Your task to perform on an android device: turn on the 24-hour format for clock Image 0: 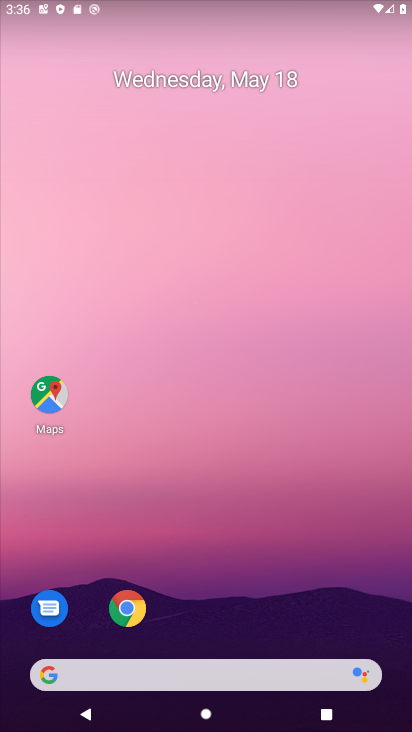
Step 0: drag from (205, 641) to (162, 132)
Your task to perform on an android device: turn on the 24-hour format for clock Image 1: 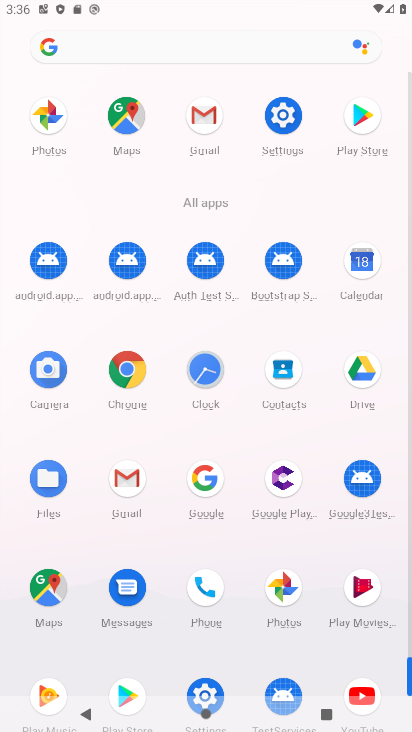
Step 1: click (198, 360)
Your task to perform on an android device: turn on the 24-hour format for clock Image 2: 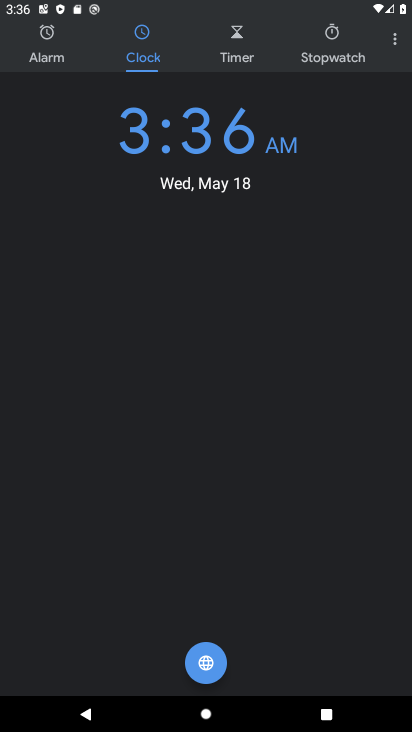
Step 2: click (407, 36)
Your task to perform on an android device: turn on the 24-hour format for clock Image 3: 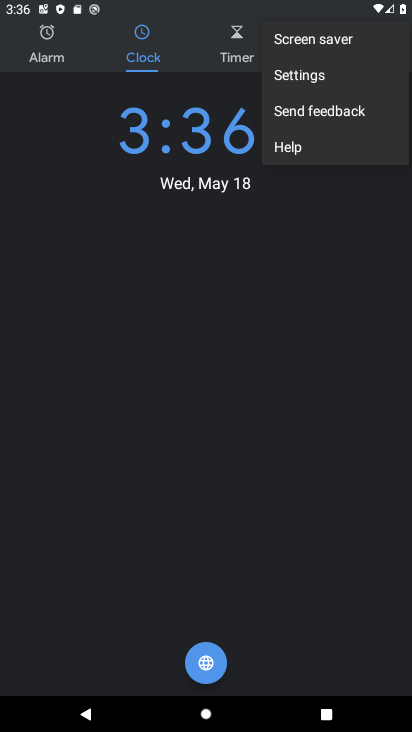
Step 3: click (307, 84)
Your task to perform on an android device: turn on the 24-hour format for clock Image 4: 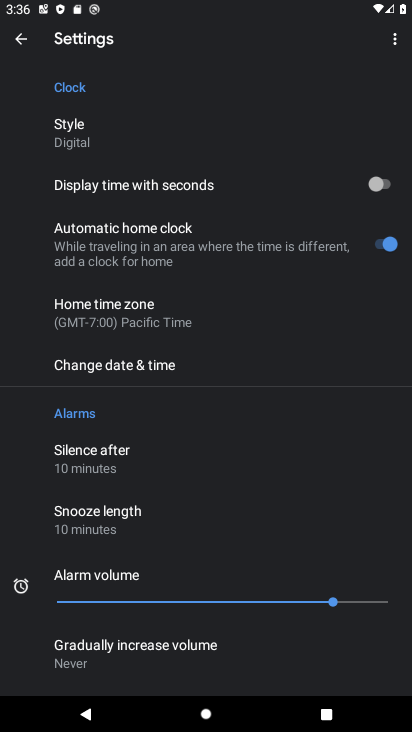
Step 4: drag from (169, 510) to (158, 154)
Your task to perform on an android device: turn on the 24-hour format for clock Image 5: 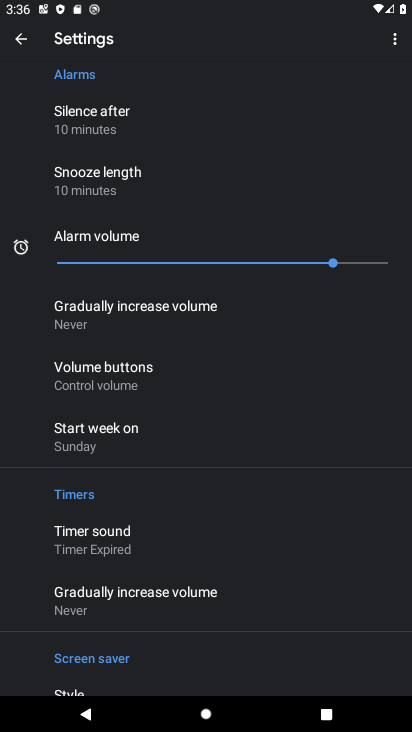
Step 5: drag from (232, 563) to (317, 84)
Your task to perform on an android device: turn on the 24-hour format for clock Image 6: 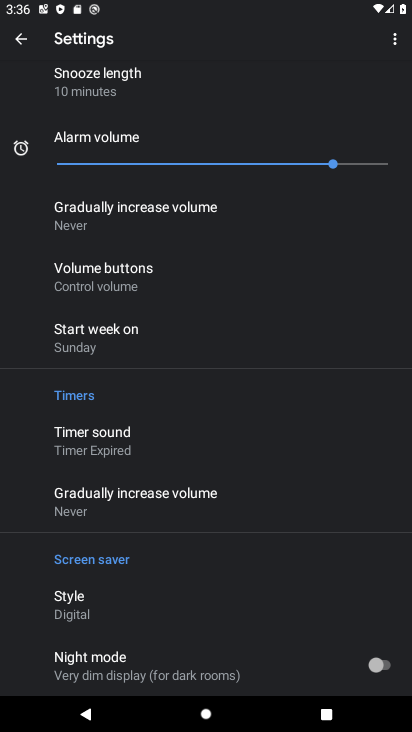
Step 6: drag from (317, 84) to (291, 592)
Your task to perform on an android device: turn on the 24-hour format for clock Image 7: 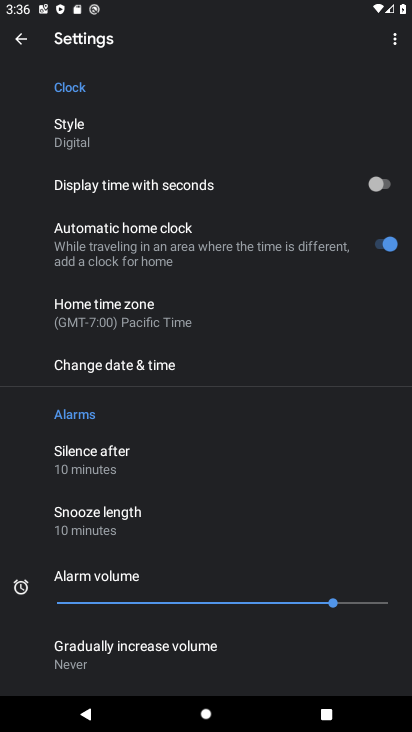
Step 7: click (165, 369)
Your task to perform on an android device: turn on the 24-hour format for clock Image 8: 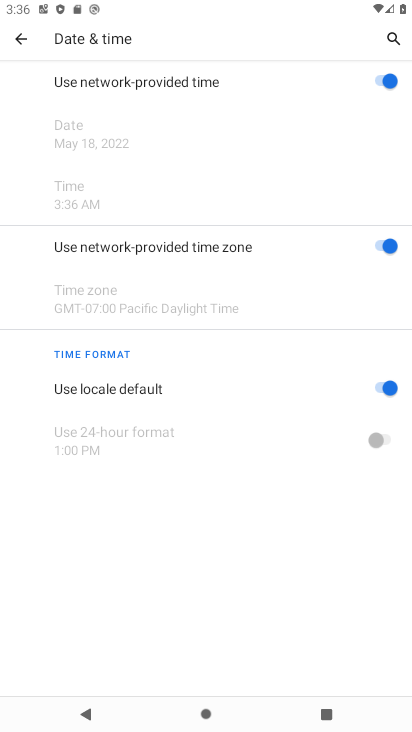
Step 8: click (389, 389)
Your task to perform on an android device: turn on the 24-hour format for clock Image 9: 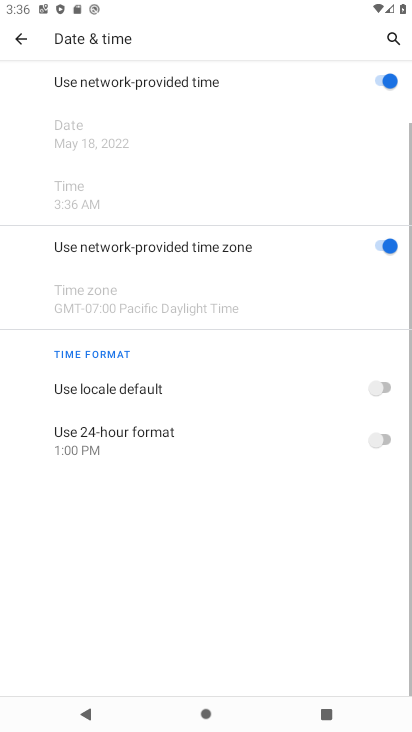
Step 9: click (391, 442)
Your task to perform on an android device: turn on the 24-hour format for clock Image 10: 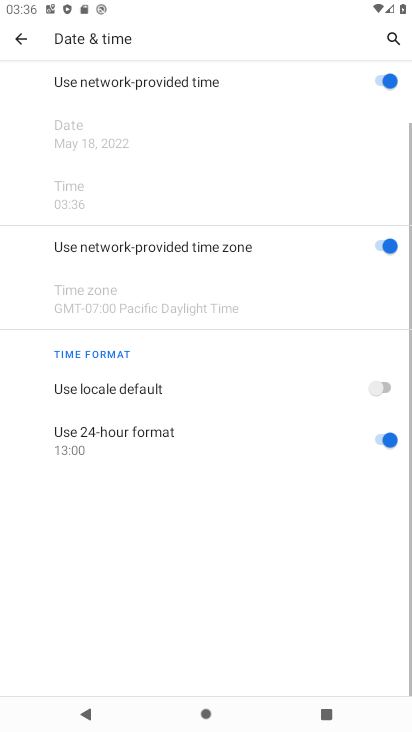
Step 10: task complete